Your task to perform on an android device: turn off airplane mode Image 0: 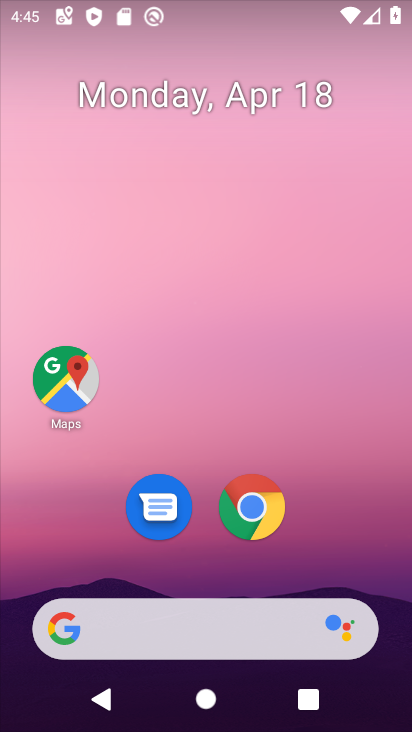
Step 0: drag from (348, 588) to (362, 125)
Your task to perform on an android device: turn off airplane mode Image 1: 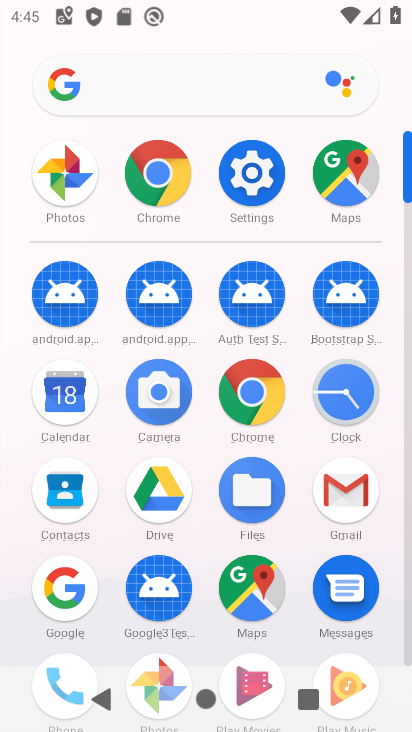
Step 1: click (234, 168)
Your task to perform on an android device: turn off airplane mode Image 2: 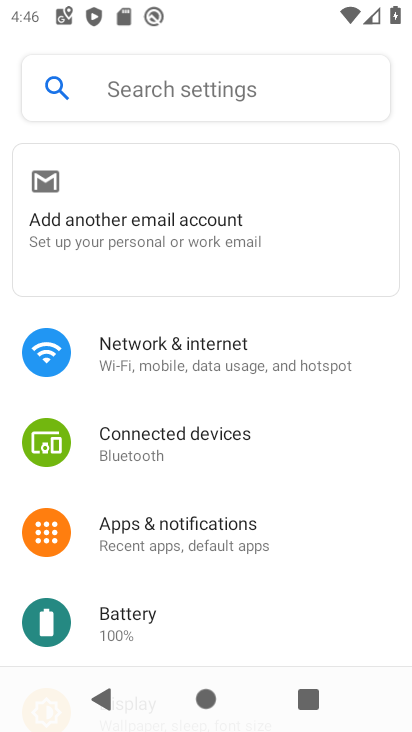
Step 2: click (206, 345)
Your task to perform on an android device: turn off airplane mode Image 3: 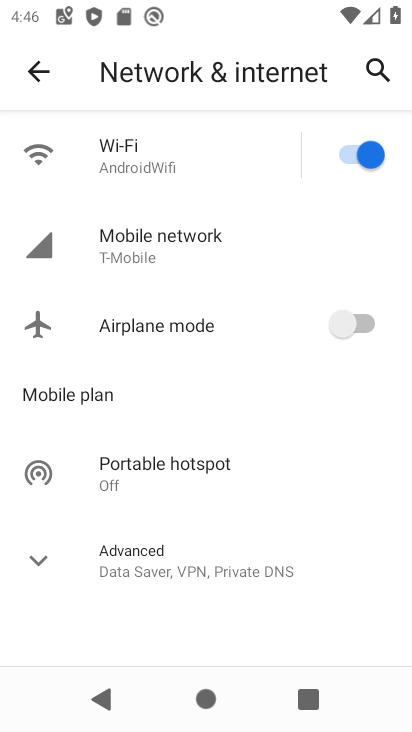
Step 3: task complete